Your task to perform on an android device: Search for vegetarian restaurants on Maps Image 0: 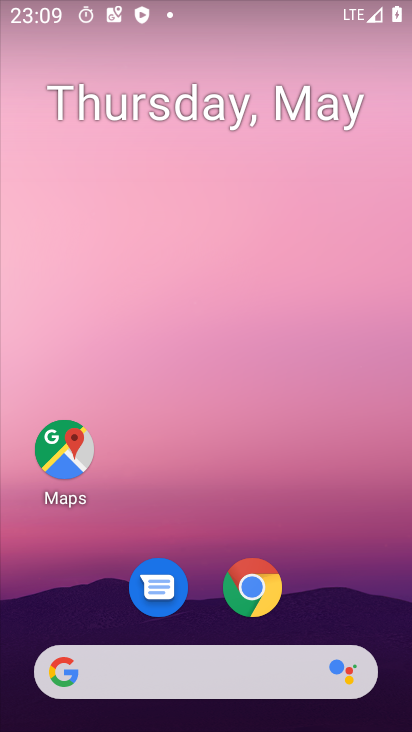
Step 0: click (61, 458)
Your task to perform on an android device: Search for vegetarian restaurants on Maps Image 1: 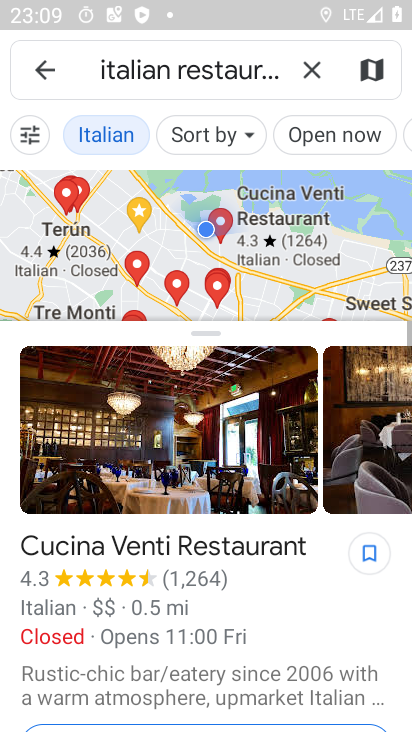
Step 1: click (320, 68)
Your task to perform on an android device: Search for vegetarian restaurants on Maps Image 2: 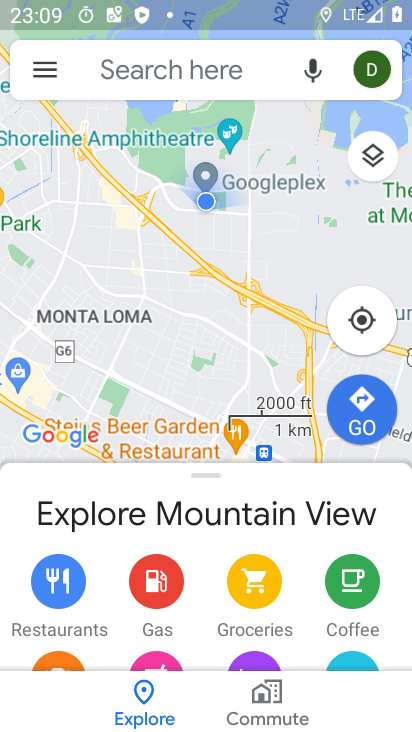
Step 2: click (93, 64)
Your task to perform on an android device: Search for vegetarian restaurants on Maps Image 3: 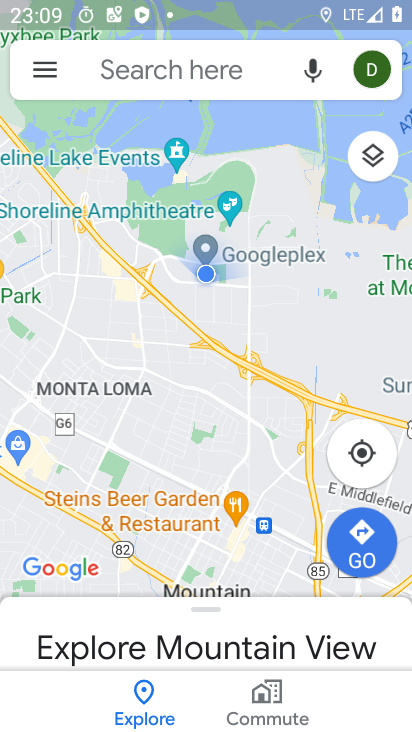
Step 3: click (108, 73)
Your task to perform on an android device: Search for vegetarian restaurants on Maps Image 4: 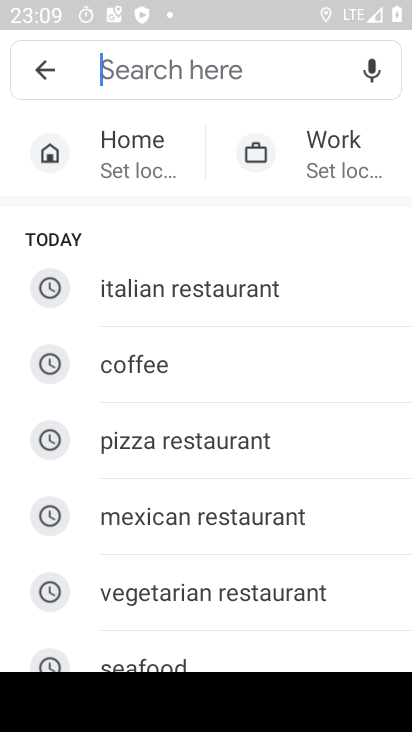
Step 4: type "vegetarian restaurants  "
Your task to perform on an android device: Search for vegetarian restaurants on Maps Image 5: 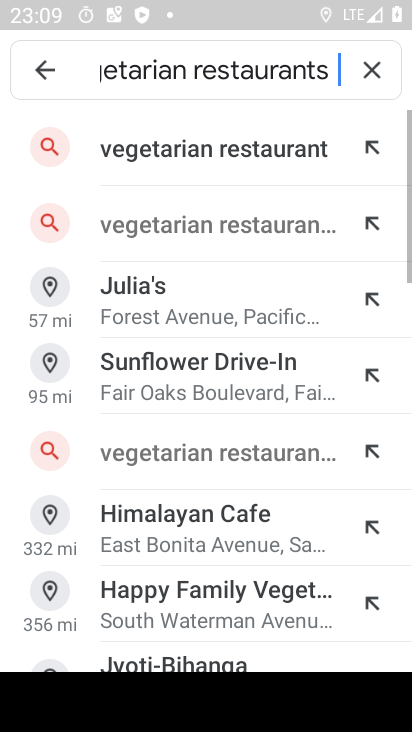
Step 5: click (136, 144)
Your task to perform on an android device: Search for vegetarian restaurants on Maps Image 6: 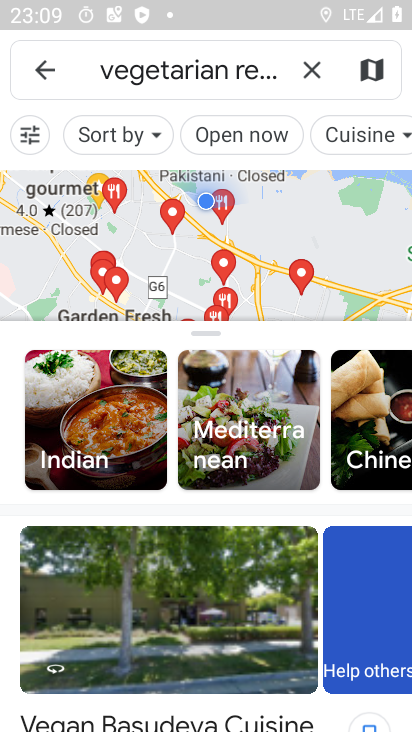
Step 6: task complete